Your task to perform on an android device: Open accessibility settings Image 0: 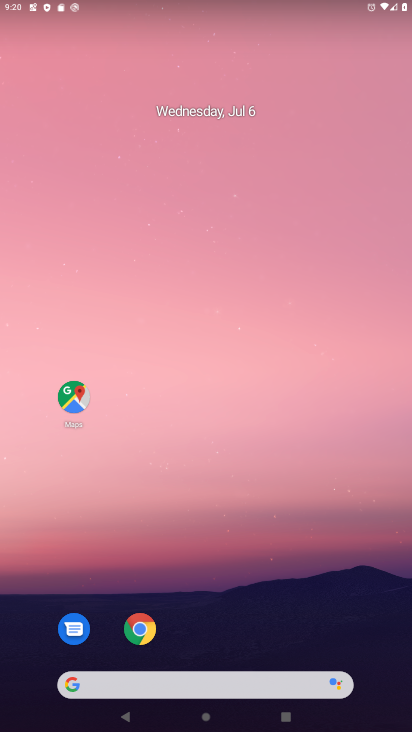
Step 0: drag from (59, 634) to (332, 190)
Your task to perform on an android device: Open accessibility settings Image 1: 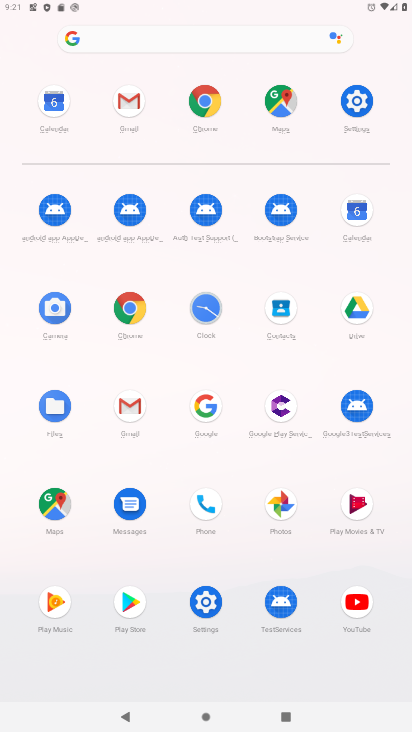
Step 1: click (358, 121)
Your task to perform on an android device: Open accessibility settings Image 2: 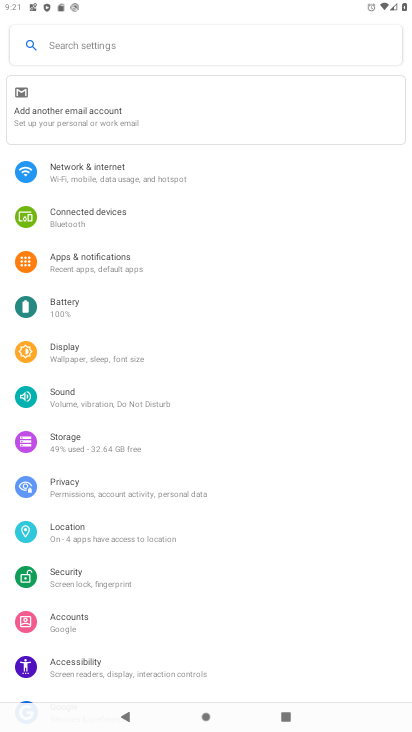
Step 2: click (123, 669)
Your task to perform on an android device: Open accessibility settings Image 3: 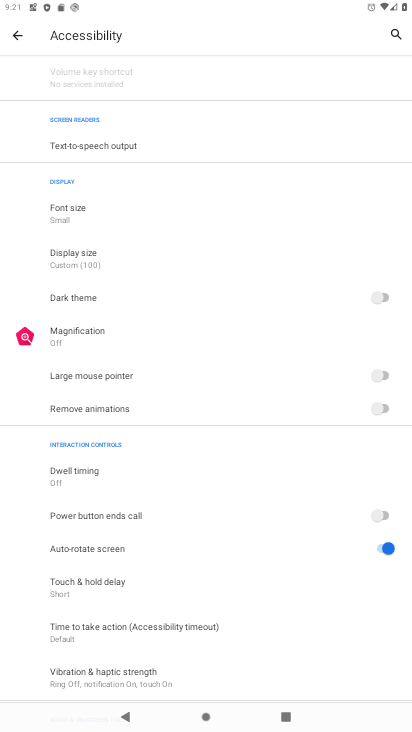
Step 3: task complete